Your task to perform on an android device: Do I have any events tomorrow? Image 0: 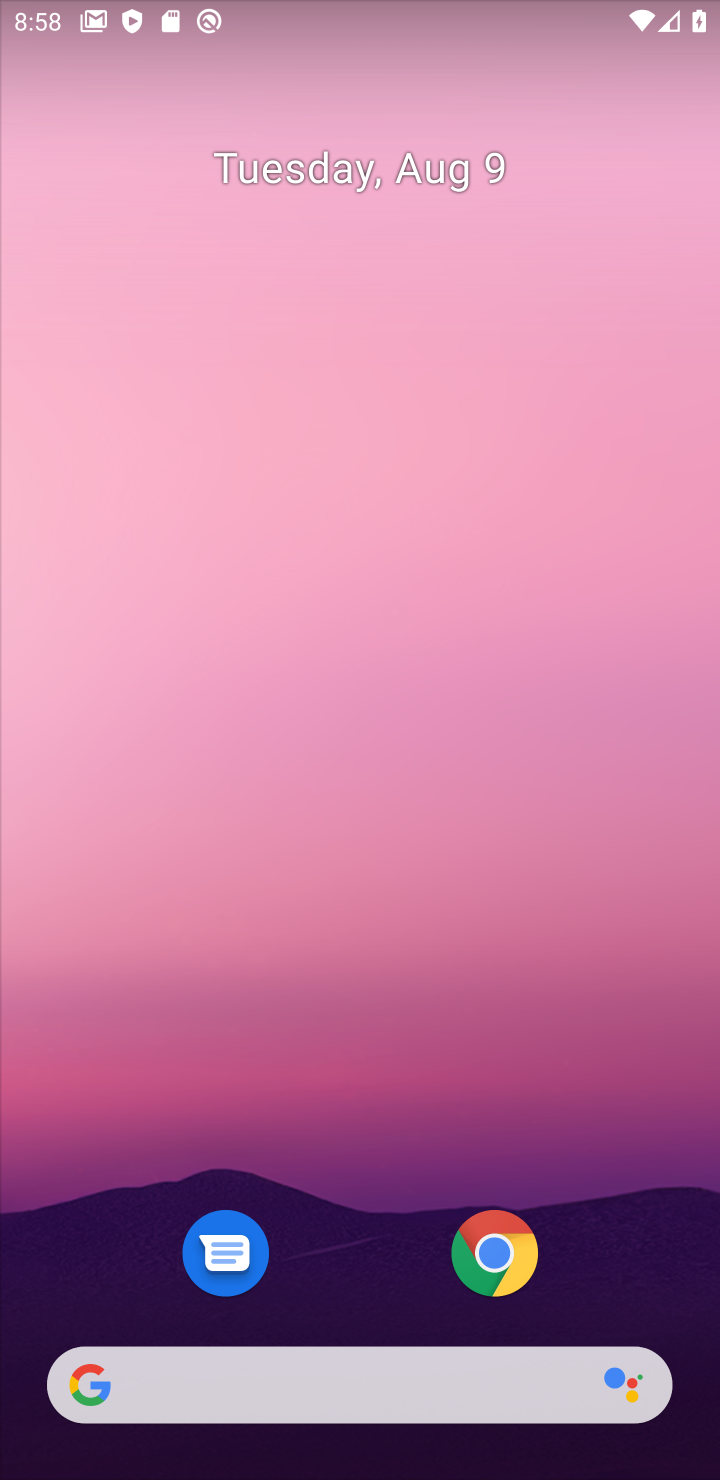
Step 0: drag from (360, 1258) to (465, 148)
Your task to perform on an android device: Do I have any events tomorrow? Image 1: 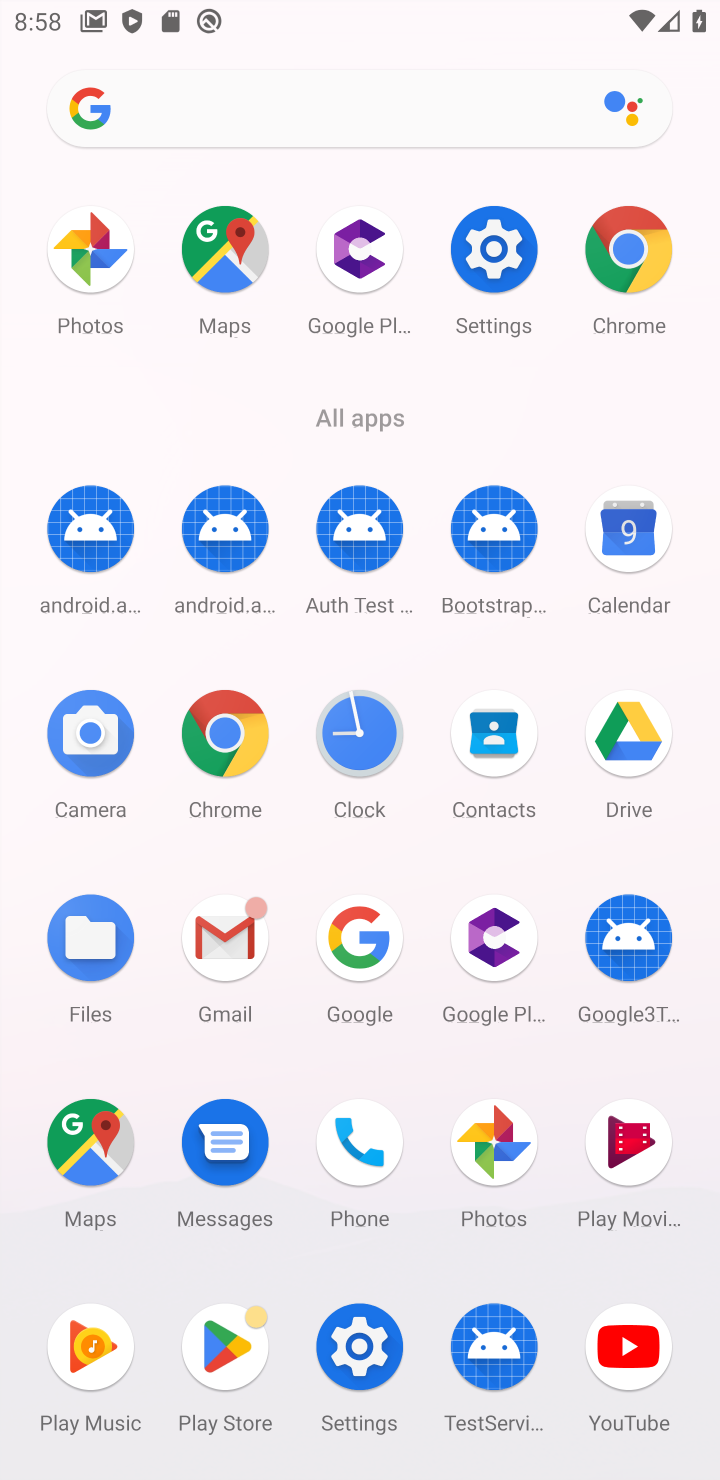
Step 1: click (624, 541)
Your task to perform on an android device: Do I have any events tomorrow? Image 2: 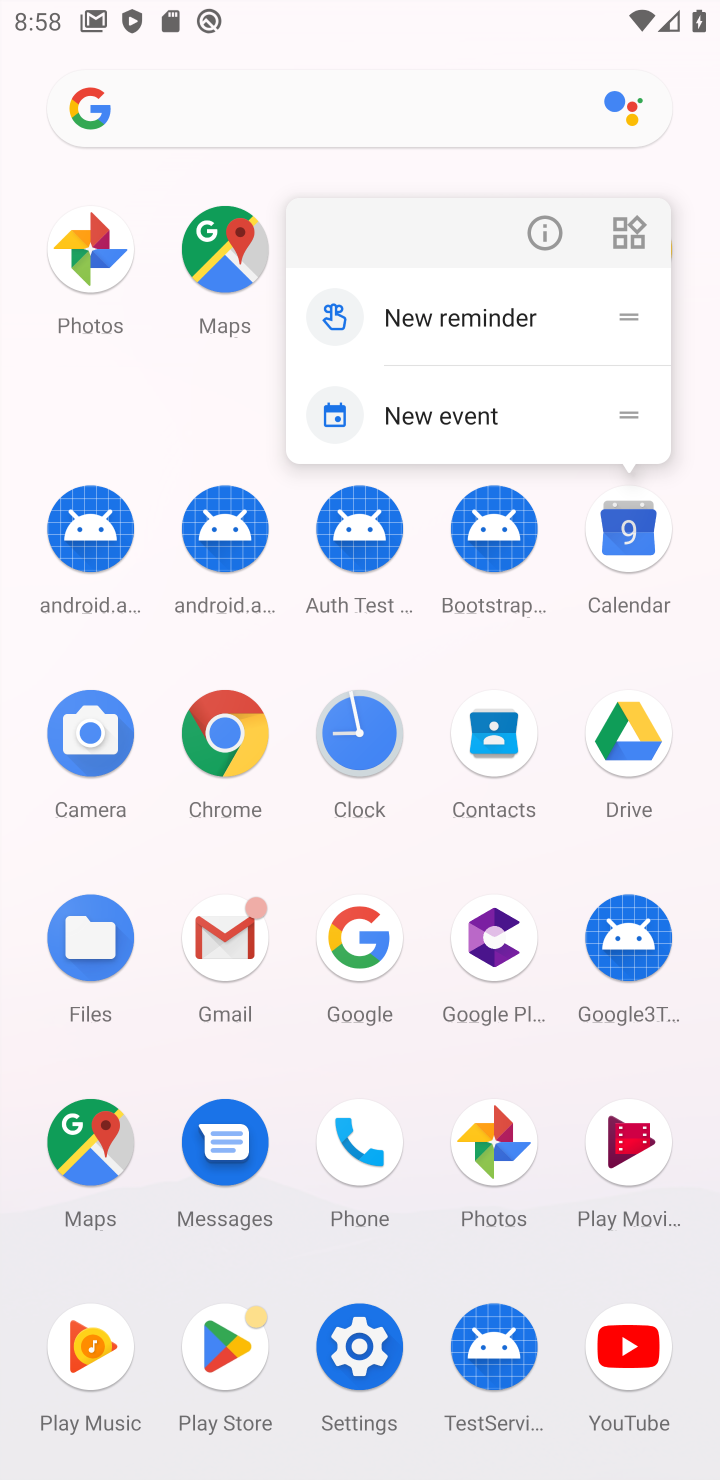
Step 2: click (628, 528)
Your task to perform on an android device: Do I have any events tomorrow? Image 3: 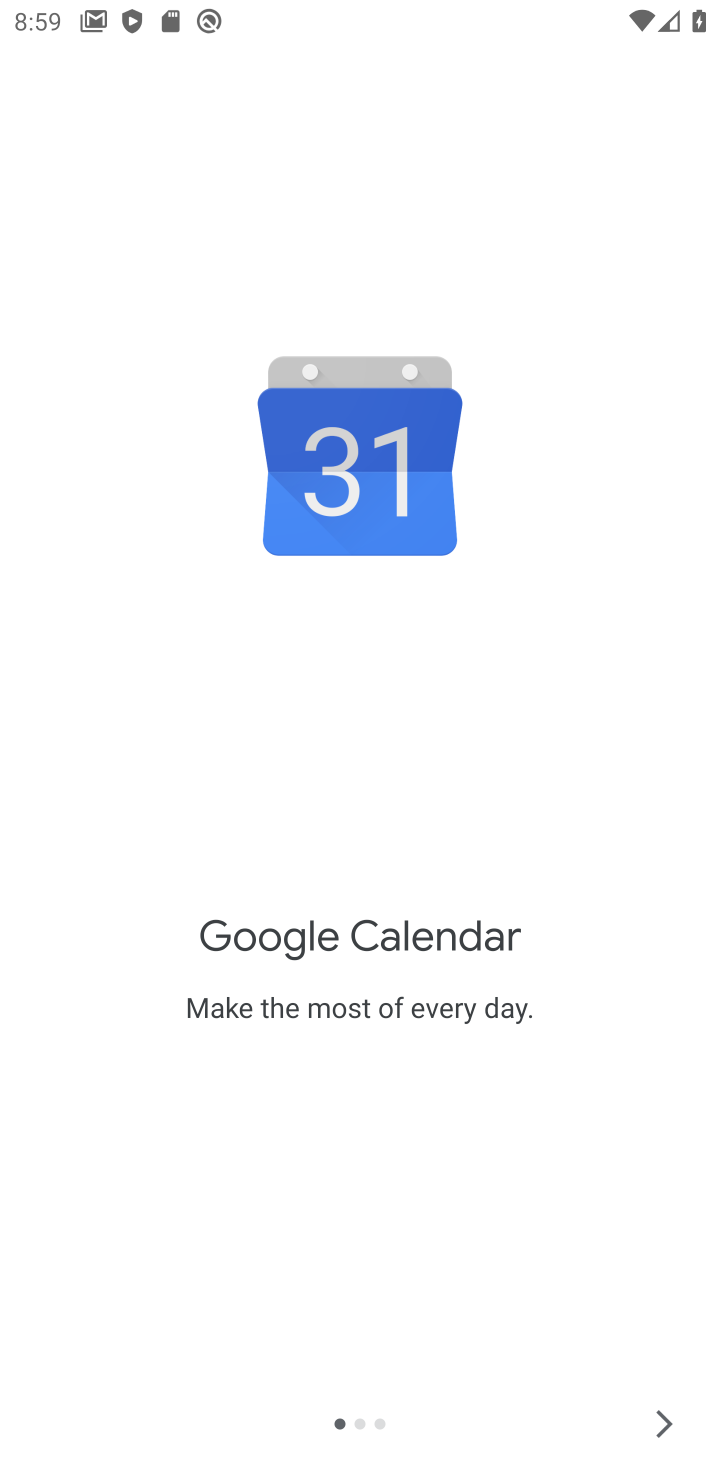
Step 3: click (656, 1417)
Your task to perform on an android device: Do I have any events tomorrow? Image 4: 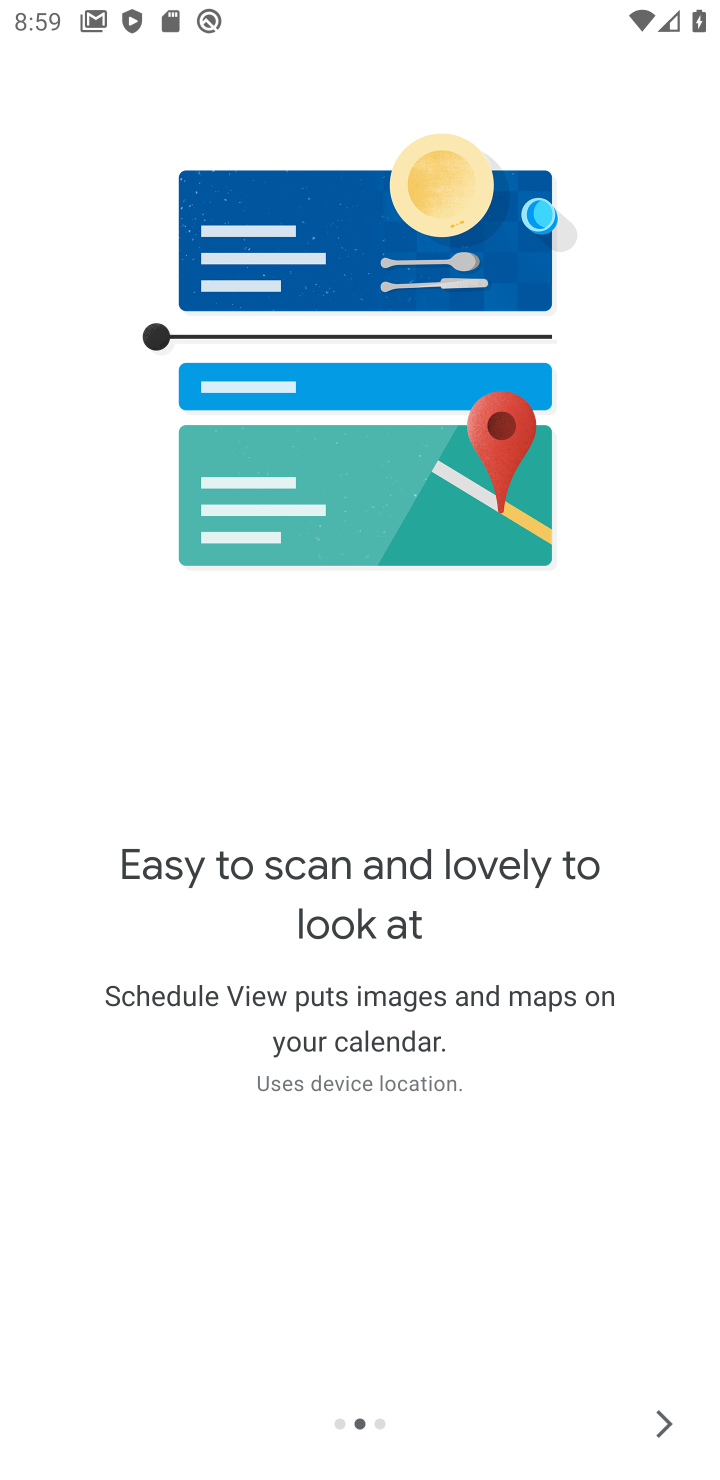
Step 4: click (656, 1417)
Your task to perform on an android device: Do I have any events tomorrow? Image 5: 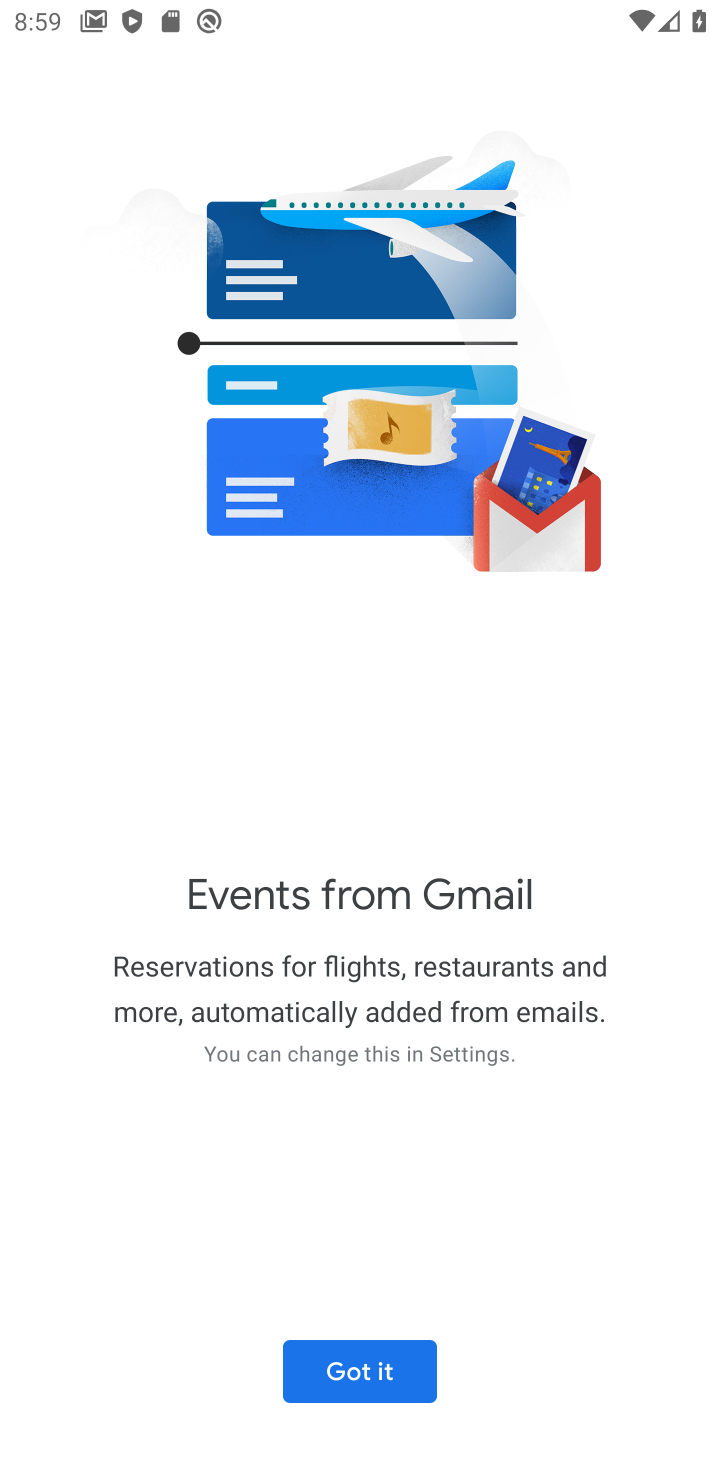
Step 5: click (342, 1387)
Your task to perform on an android device: Do I have any events tomorrow? Image 6: 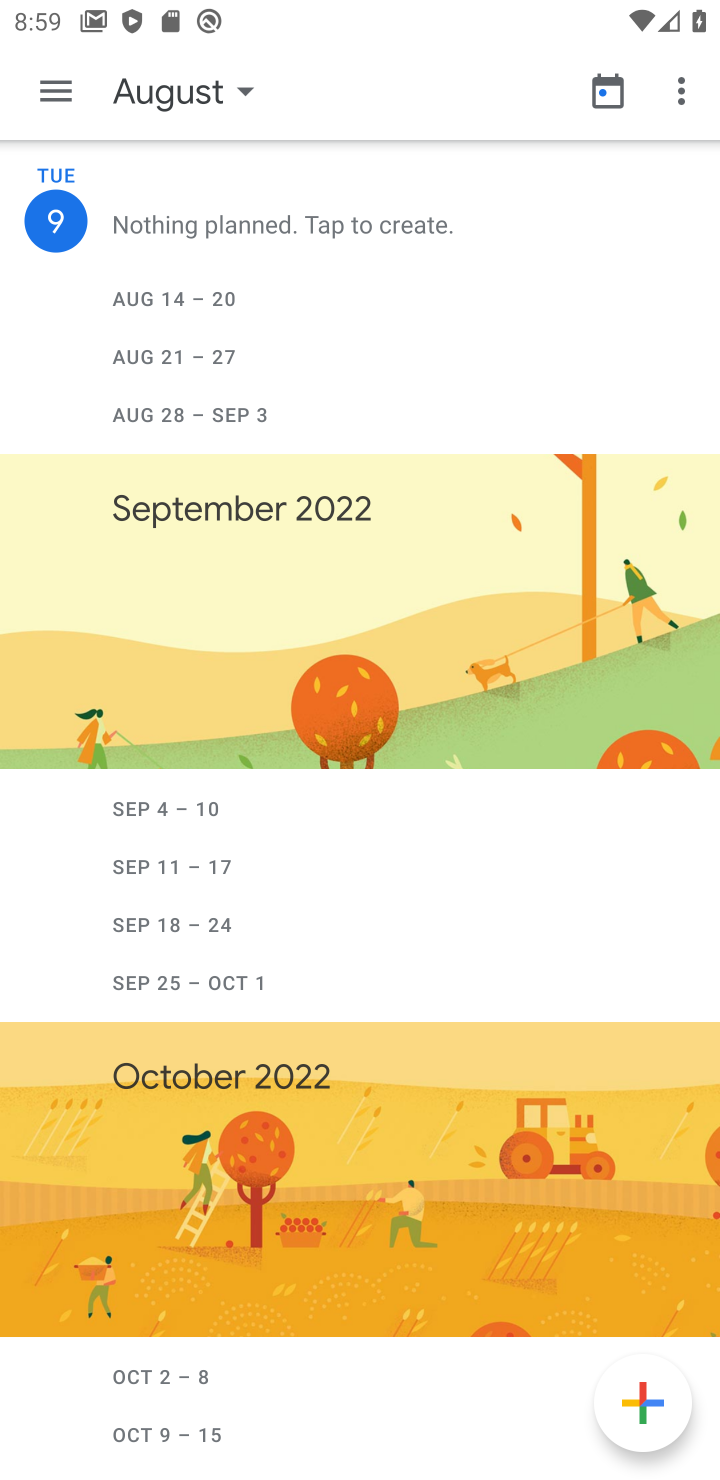
Step 6: click (120, 89)
Your task to perform on an android device: Do I have any events tomorrow? Image 7: 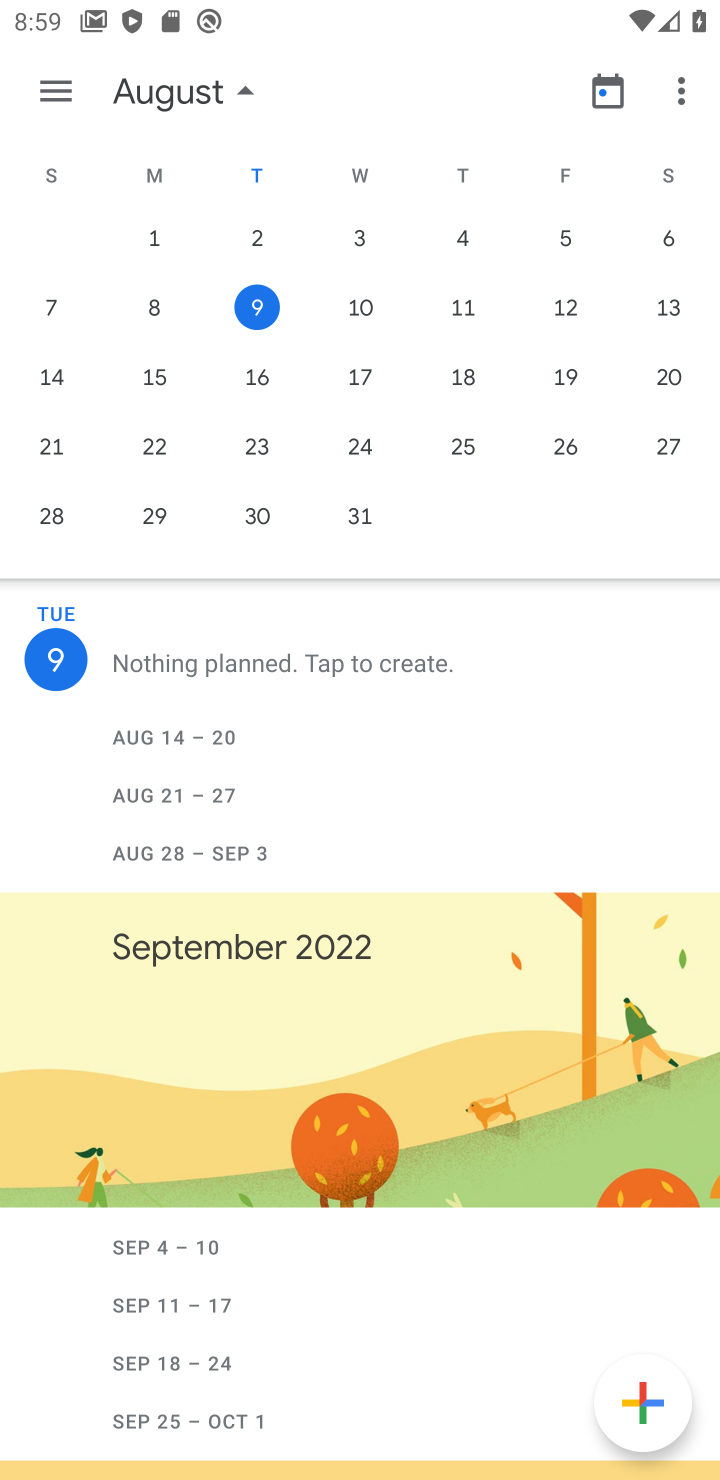
Step 7: click (353, 310)
Your task to perform on an android device: Do I have any events tomorrow? Image 8: 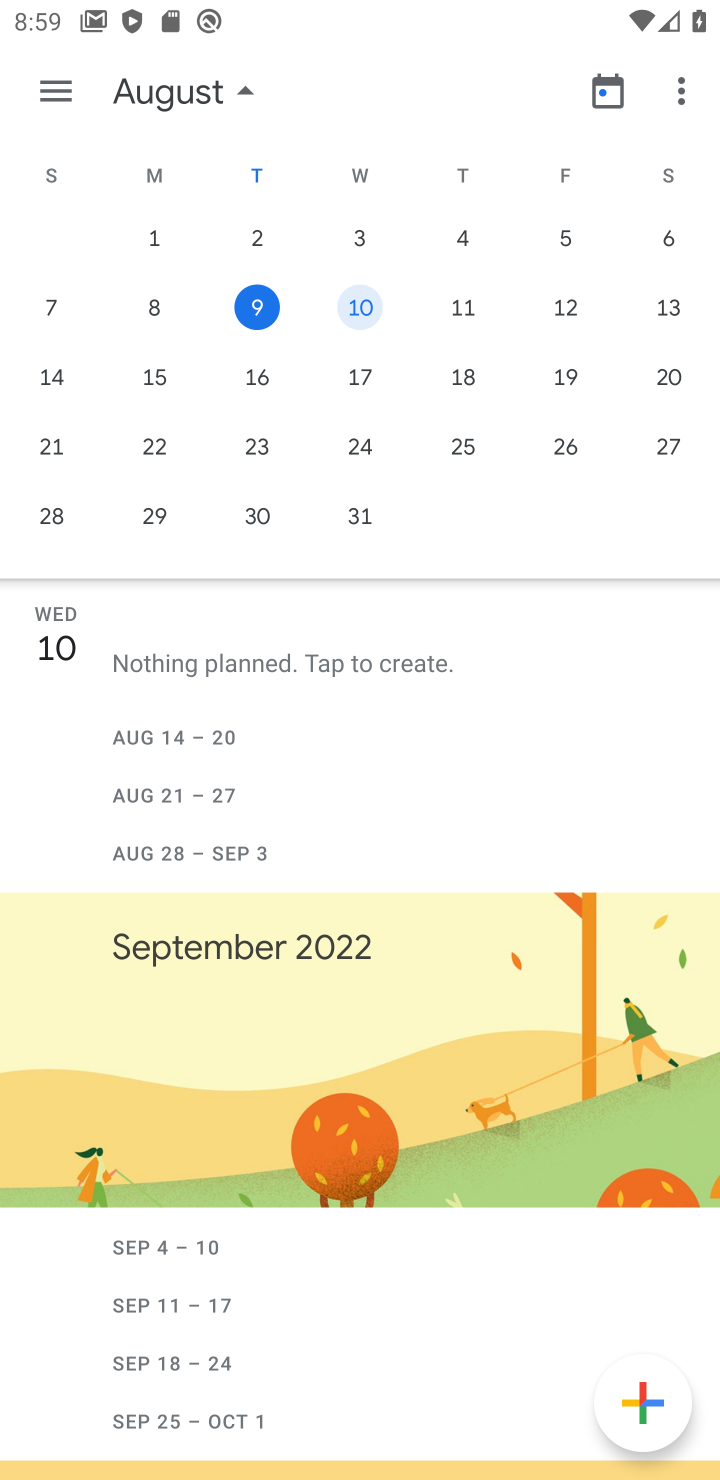
Step 8: click (355, 301)
Your task to perform on an android device: Do I have any events tomorrow? Image 9: 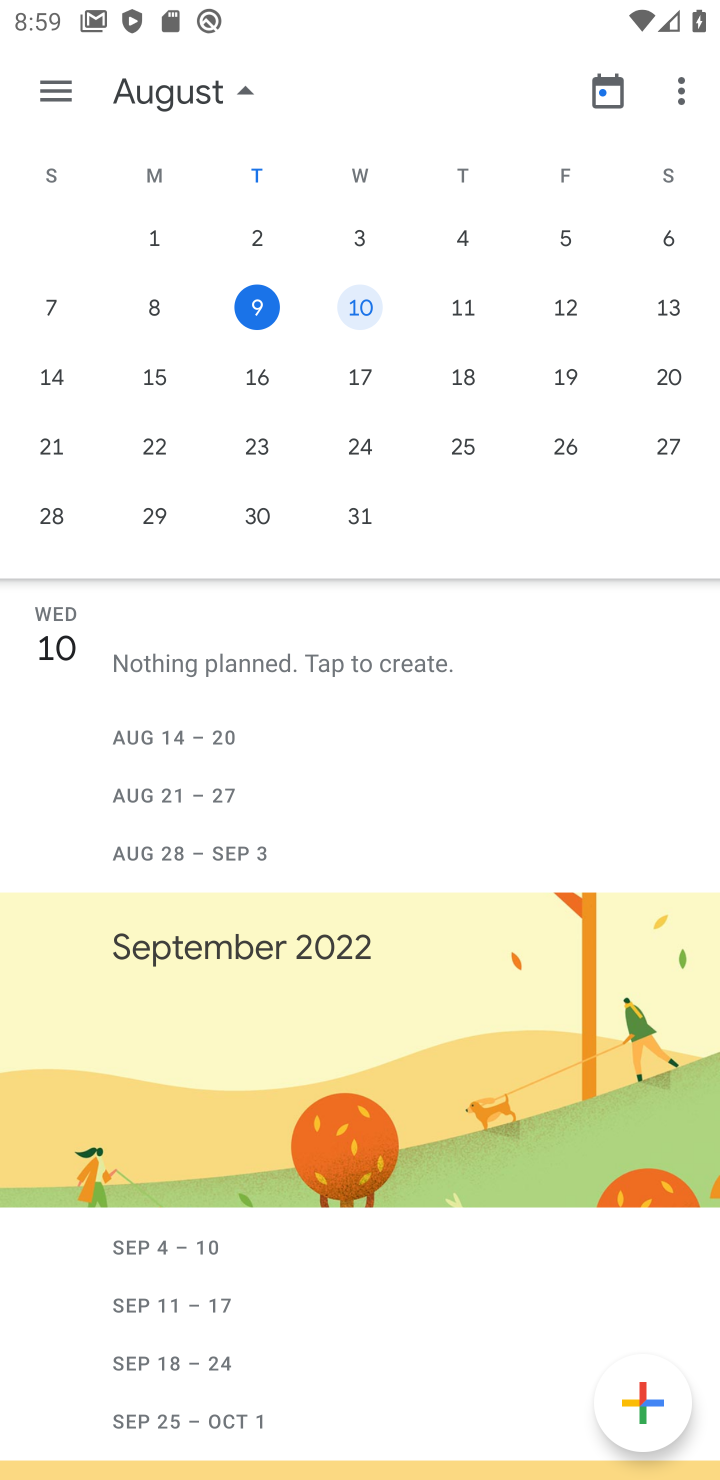
Step 9: click (355, 301)
Your task to perform on an android device: Do I have any events tomorrow? Image 10: 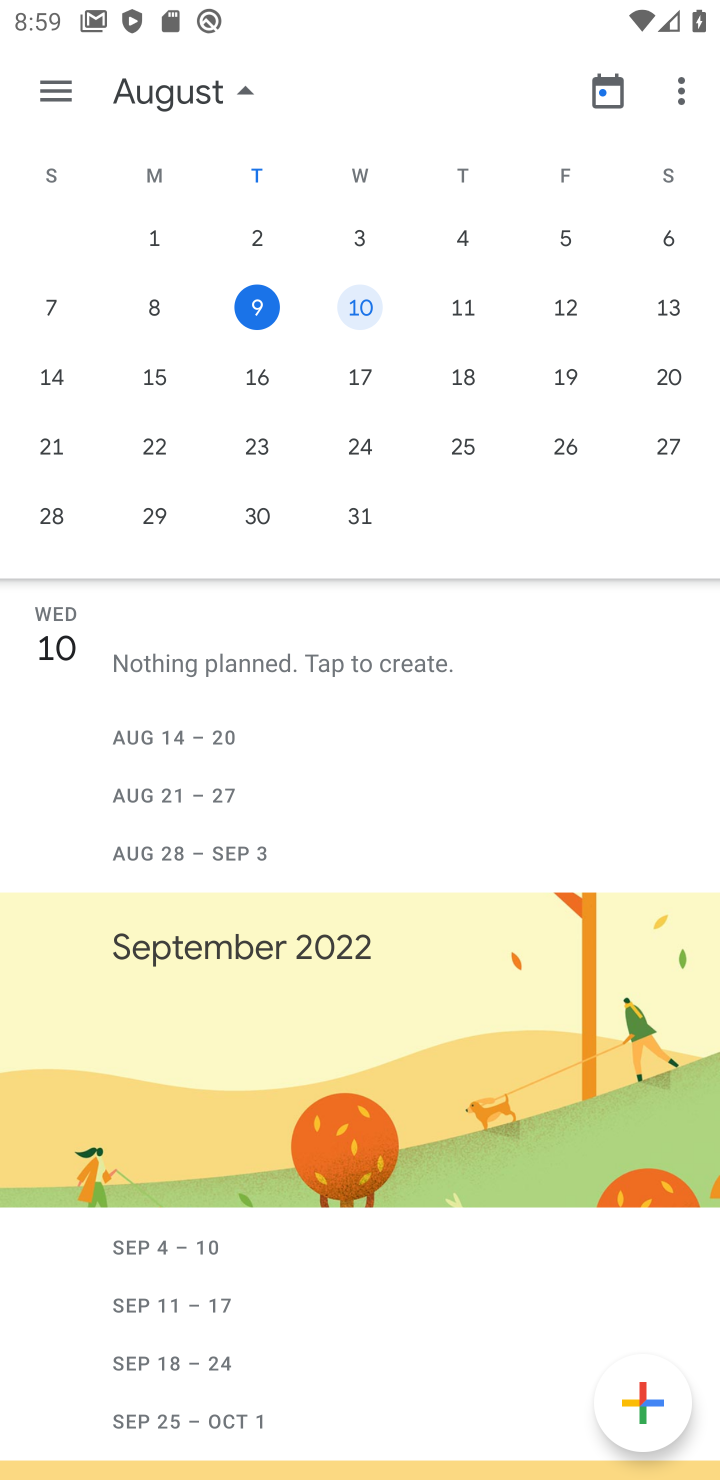
Step 10: click (355, 301)
Your task to perform on an android device: Do I have any events tomorrow? Image 11: 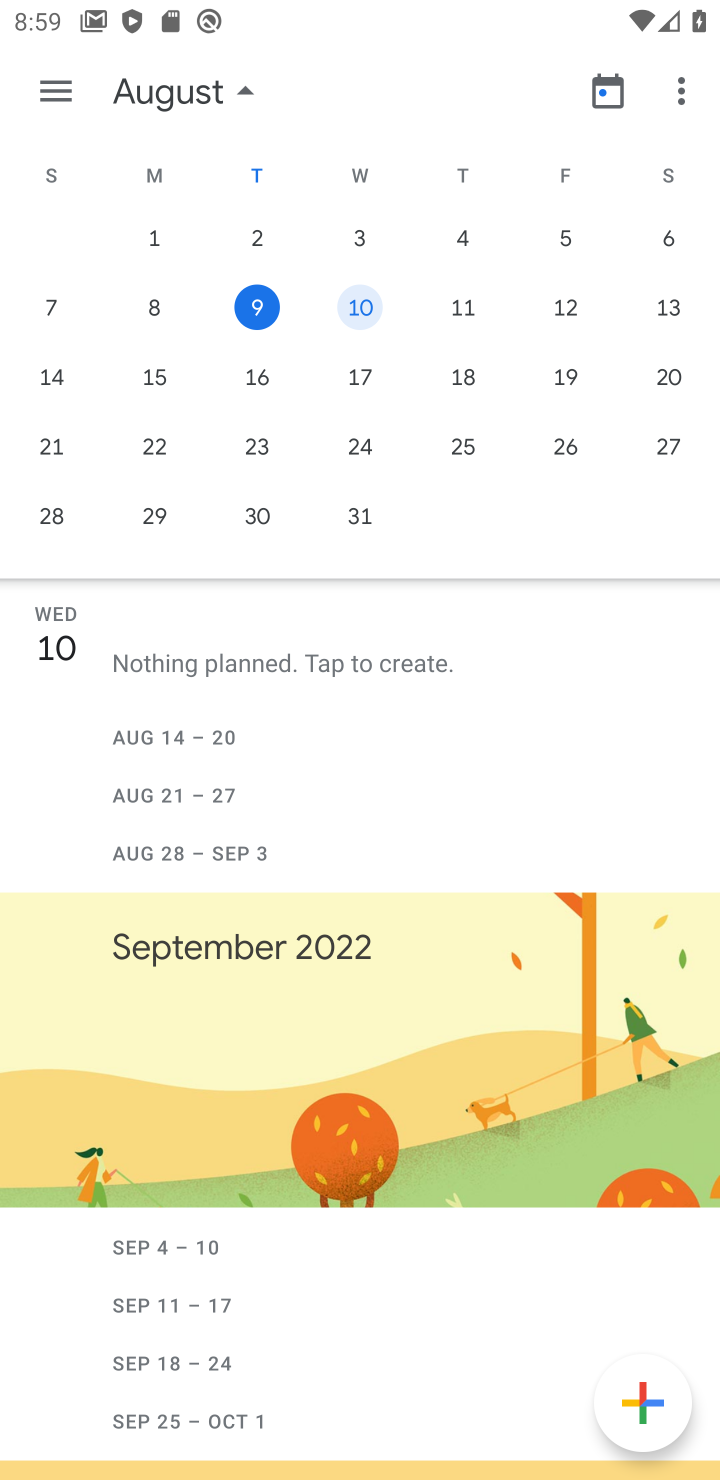
Step 11: task complete